Your task to perform on an android device: Show me the alarms in the clock app Image 0: 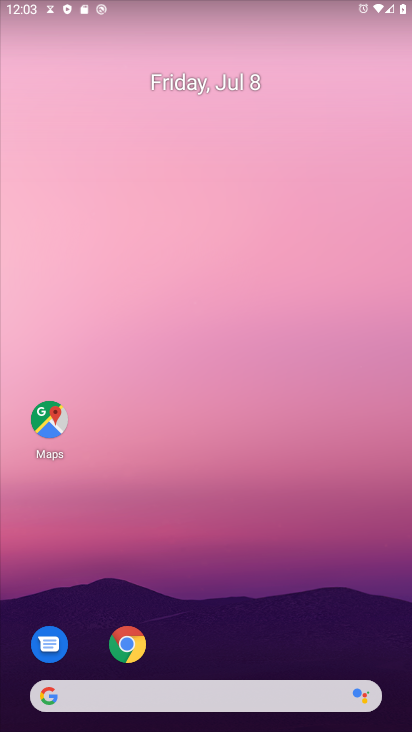
Step 0: drag from (285, 571) to (309, 43)
Your task to perform on an android device: Show me the alarms in the clock app Image 1: 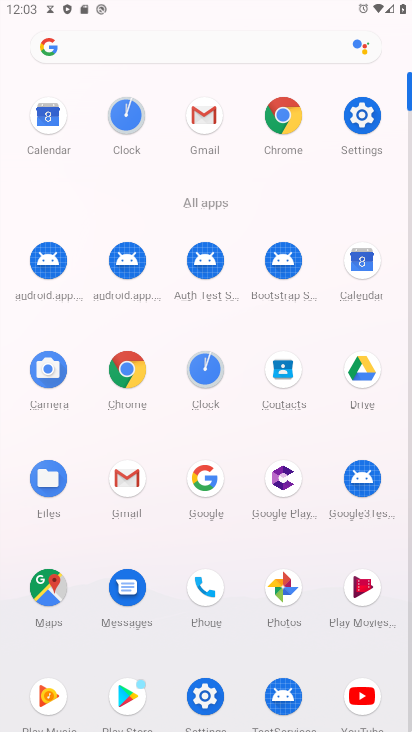
Step 1: click (206, 364)
Your task to perform on an android device: Show me the alarms in the clock app Image 2: 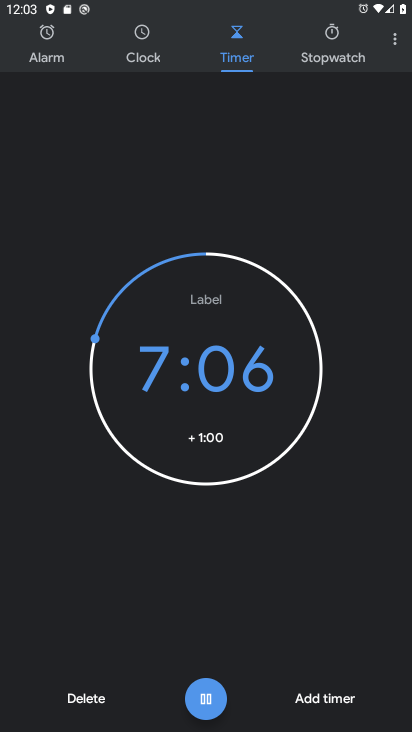
Step 2: click (25, 54)
Your task to perform on an android device: Show me the alarms in the clock app Image 3: 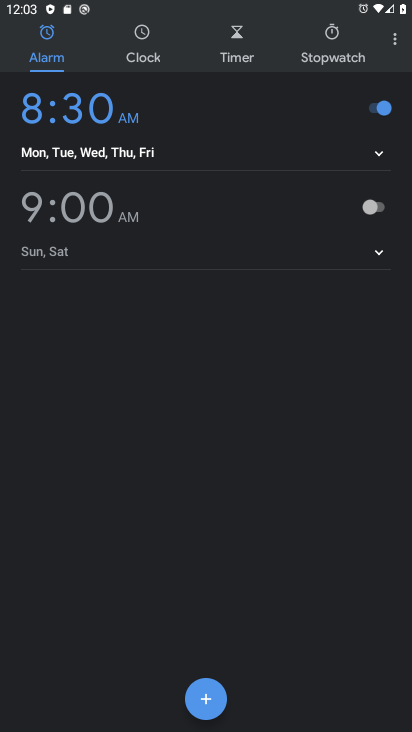
Step 3: task complete